Your task to perform on an android device: add a contact in the contacts app Image 0: 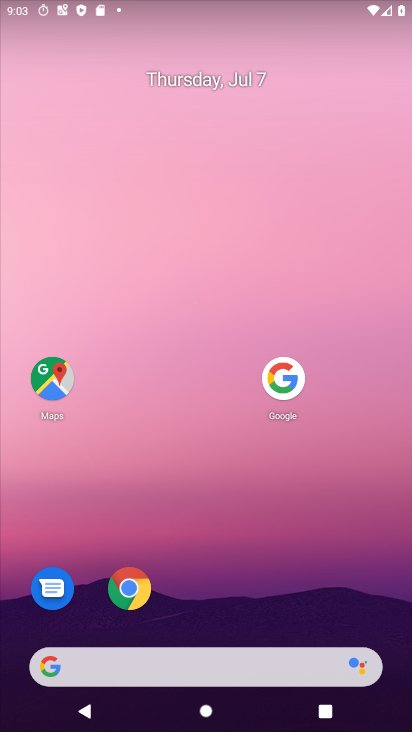
Step 0: drag from (217, 668) to (288, 104)
Your task to perform on an android device: add a contact in the contacts app Image 1: 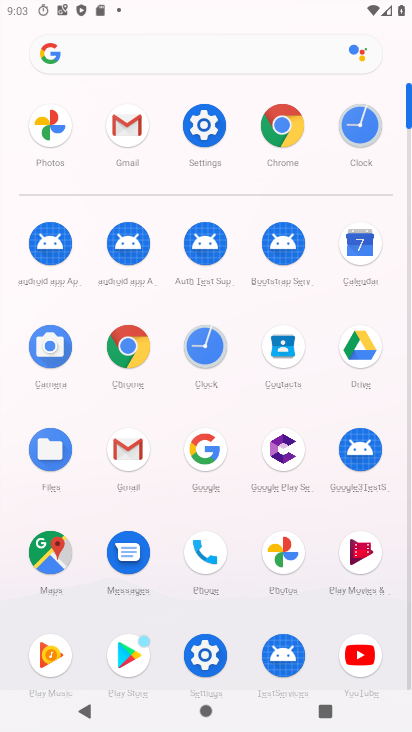
Step 1: click (281, 353)
Your task to perform on an android device: add a contact in the contacts app Image 2: 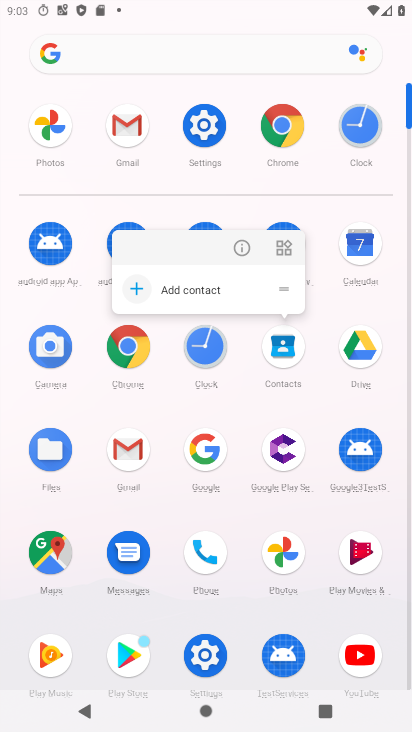
Step 2: click (281, 352)
Your task to perform on an android device: add a contact in the contacts app Image 3: 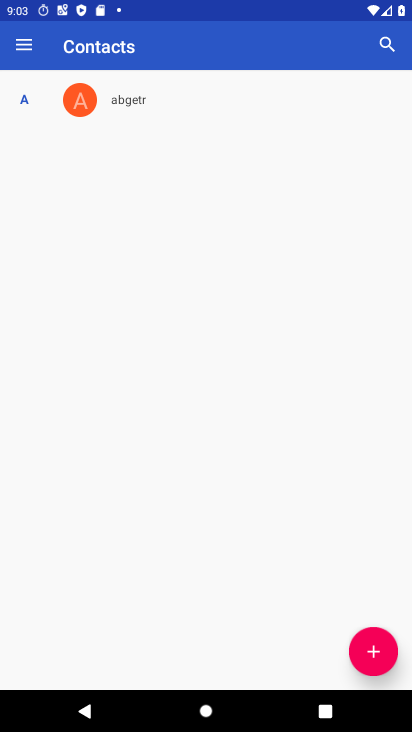
Step 3: click (375, 659)
Your task to perform on an android device: add a contact in the contacts app Image 4: 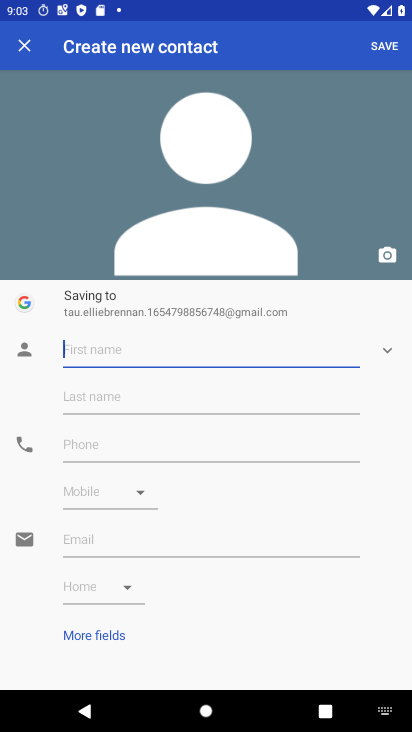
Step 4: click (119, 348)
Your task to perform on an android device: add a contact in the contacts app Image 5: 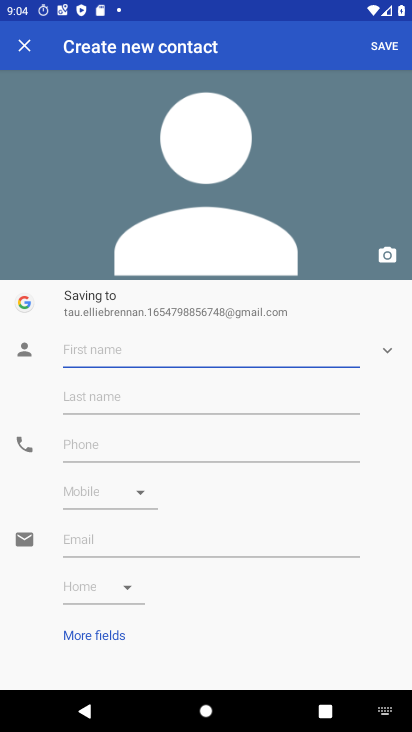
Step 5: type "ascdfr"
Your task to perform on an android device: add a contact in the contacts app Image 6: 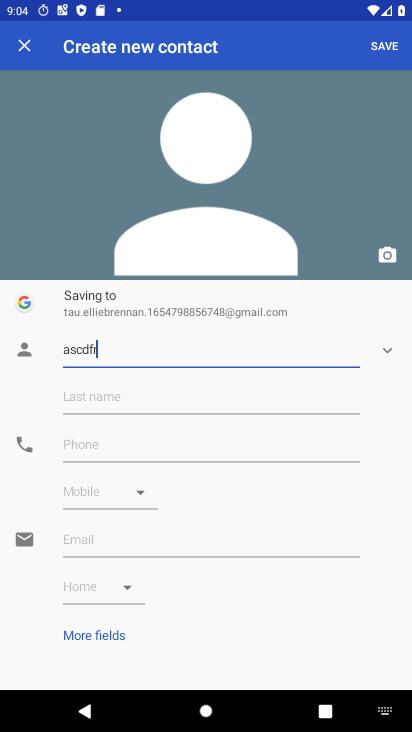
Step 6: click (79, 444)
Your task to perform on an android device: add a contact in the contacts app Image 7: 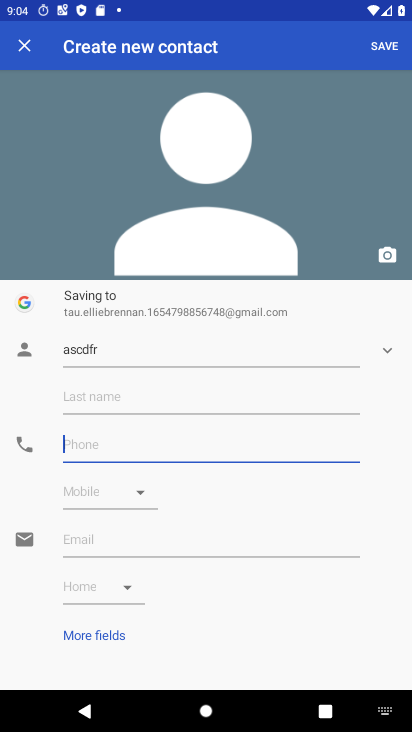
Step 7: click (88, 435)
Your task to perform on an android device: add a contact in the contacts app Image 8: 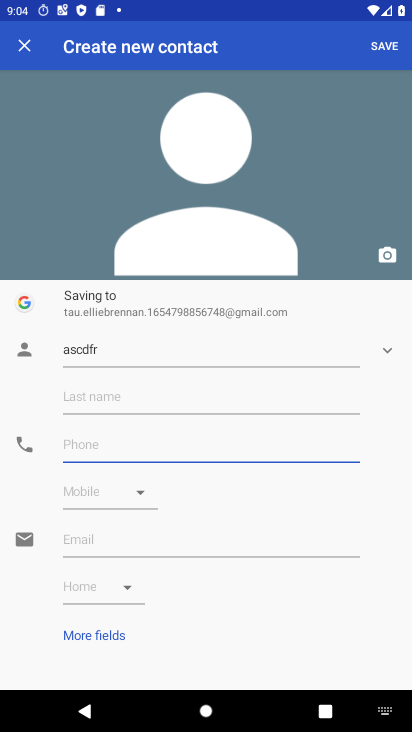
Step 8: type "2173645"
Your task to perform on an android device: add a contact in the contacts app Image 9: 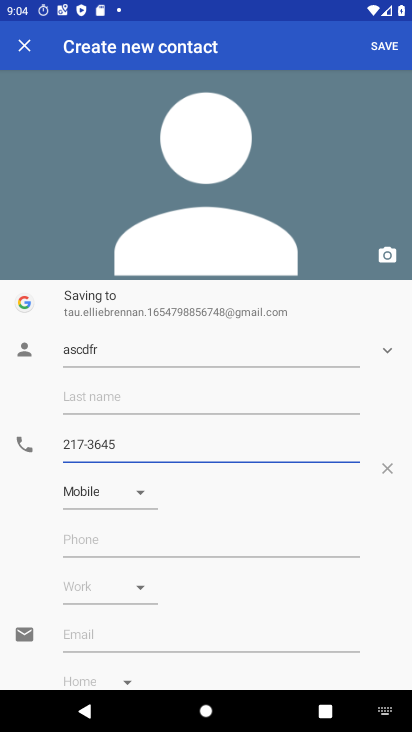
Step 9: click (384, 45)
Your task to perform on an android device: add a contact in the contacts app Image 10: 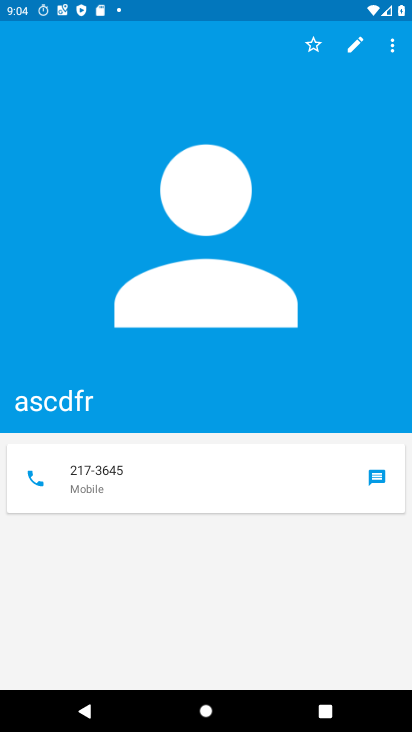
Step 10: task complete